Your task to perform on an android device: toggle notification dots Image 0: 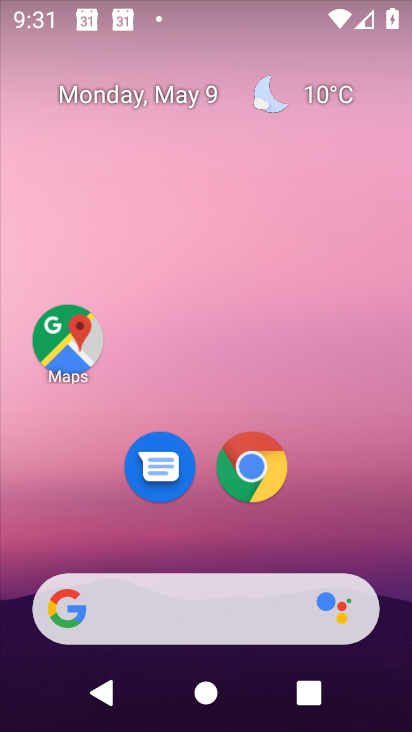
Step 0: drag from (358, 541) to (365, 3)
Your task to perform on an android device: toggle notification dots Image 1: 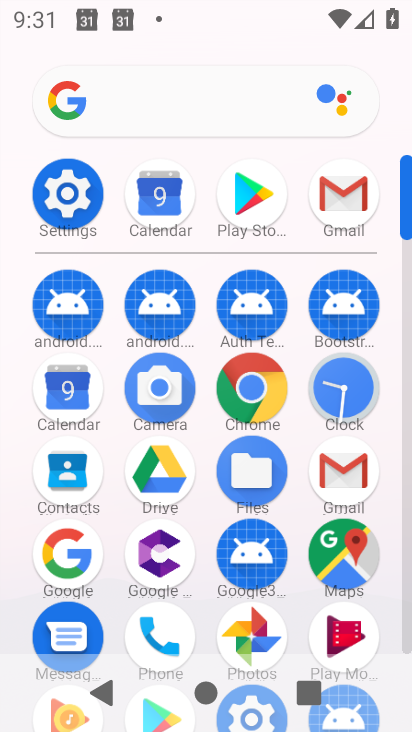
Step 1: click (86, 205)
Your task to perform on an android device: toggle notification dots Image 2: 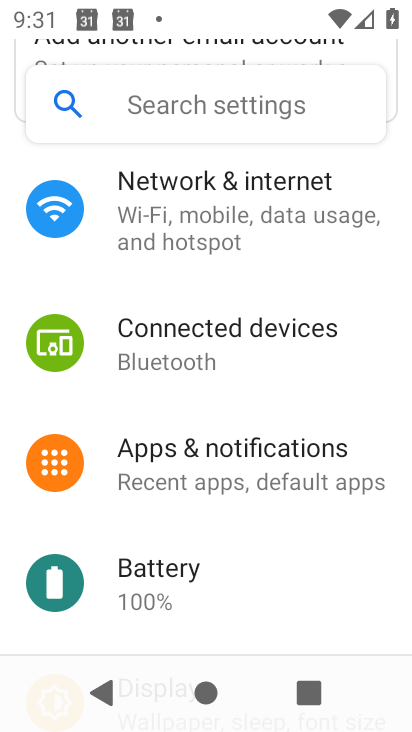
Step 2: click (294, 461)
Your task to perform on an android device: toggle notification dots Image 3: 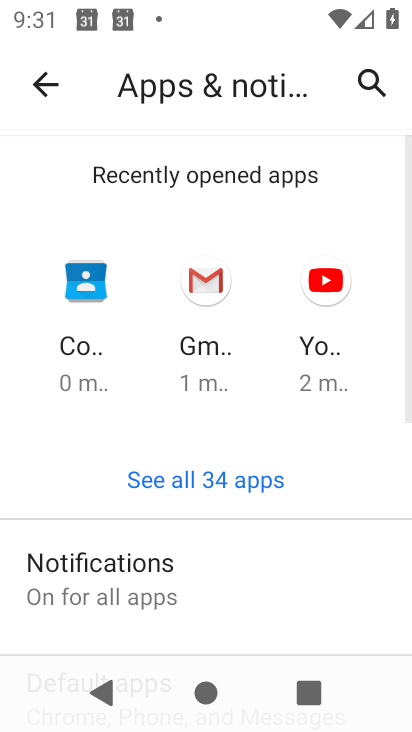
Step 3: click (145, 595)
Your task to perform on an android device: toggle notification dots Image 4: 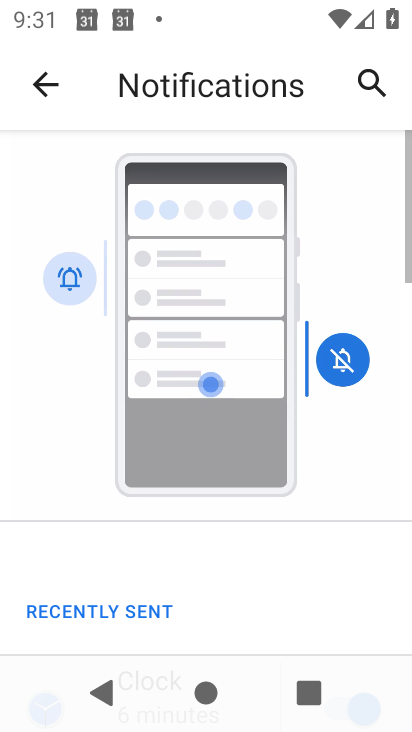
Step 4: drag from (145, 595) to (144, 76)
Your task to perform on an android device: toggle notification dots Image 5: 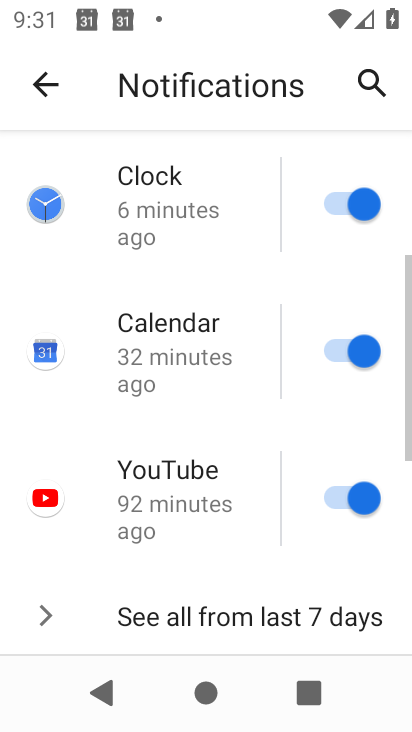
Step 5: drag from (107, 538) to (129, 17)
Your task to perform on an android device: toggle notification dots Image 6: 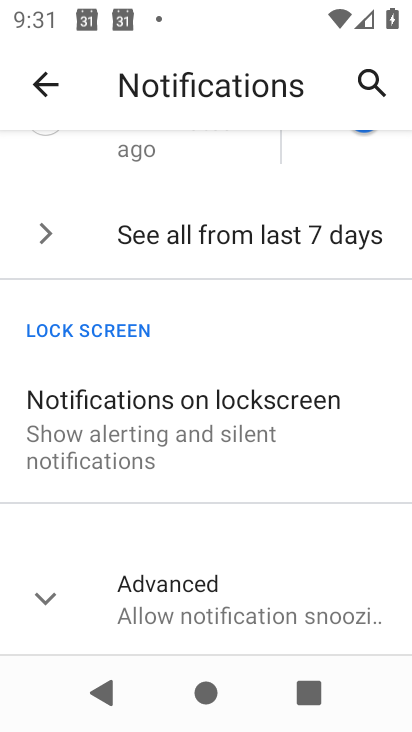
Step 6: click (50, 609)
Your task to perform on an android device: toggle notification dots Image 7: 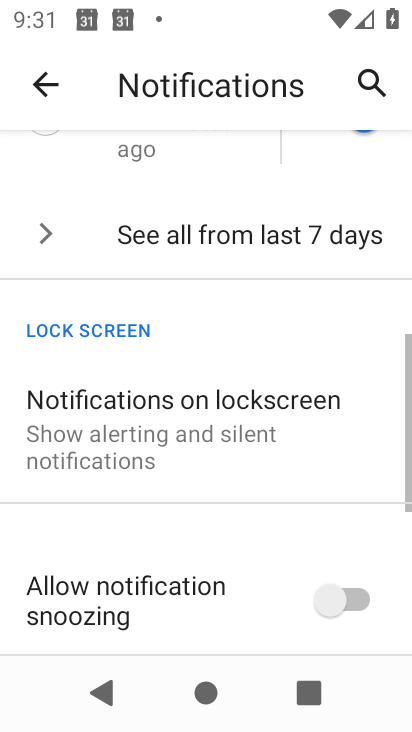
Step 7: drag from (141, 598) to (191, 69)
Your task to perform on an android device: toggle notification dots Image 8: 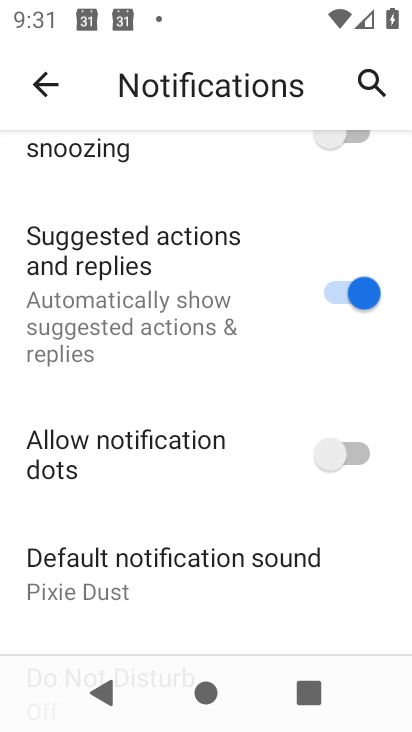
Step 8: click (350, 457)
Your task to perform on an android device: toggle notification dots Image 9: 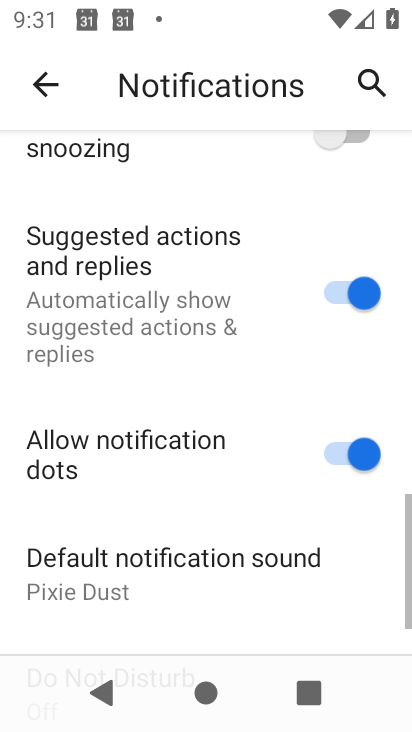
Step 9: task complete